Your task to perform on an android device: change the upload size in google photos Image 0: 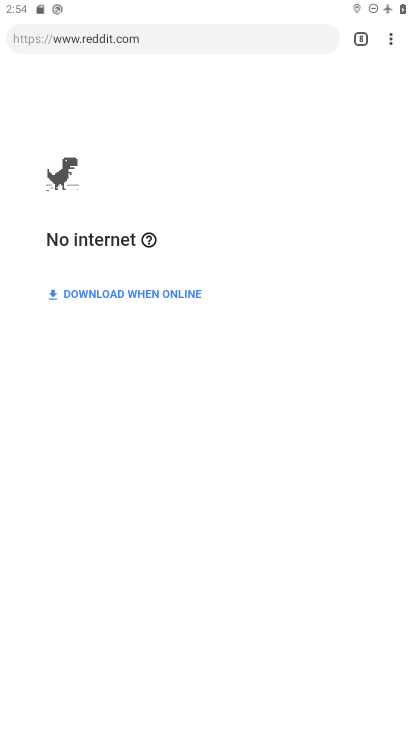
Step 0: press home button
Your task to perform on an android device: change the upload size in google photos Image 1: 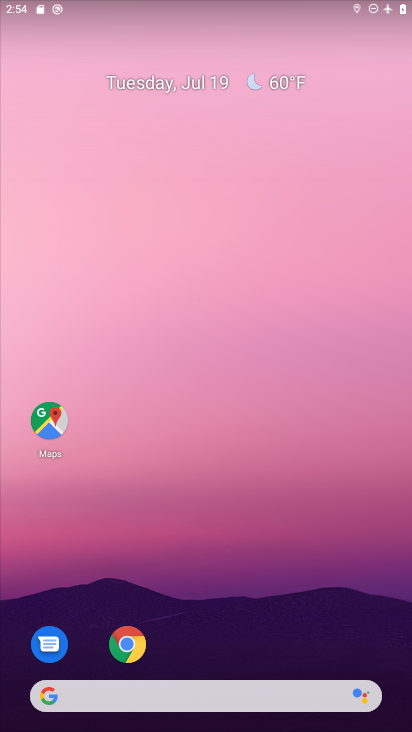
Step 1: drag from (218, 655) to (244, 12)
Your task to perform on an android device: change the upload size in google photos Image 2: 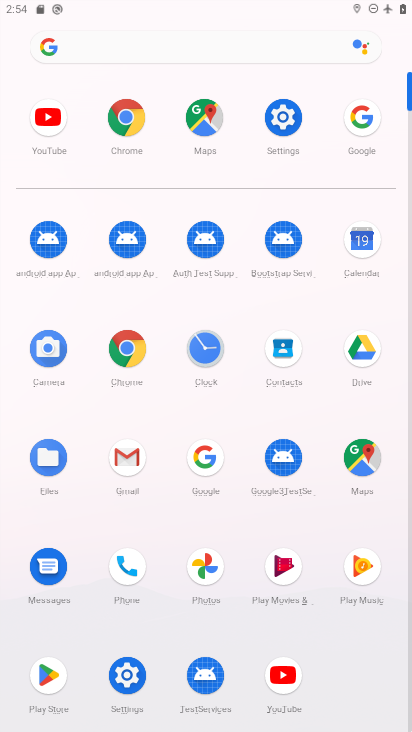
Step 2: click (201, 562)
Your task to perform on an android device: change the upload size in google photos Image 3: 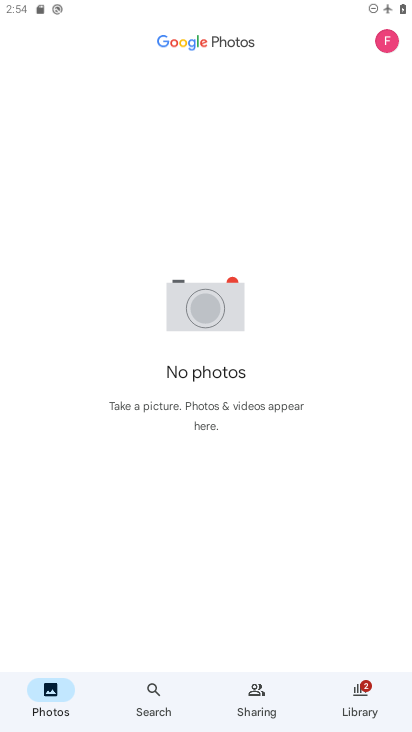
Step 3: click (385, 39)
Your task to perform on an android device: change the upload size in google photos Image 4: 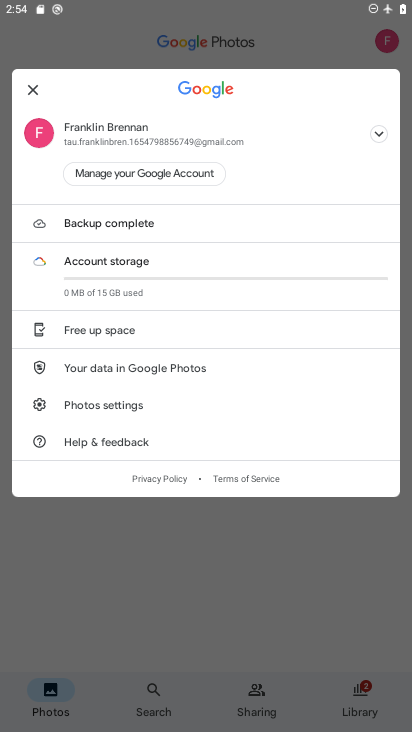
Step 4: click (100, 397)
Your task to perform on an android device: change the upload size in google photos Image 5: 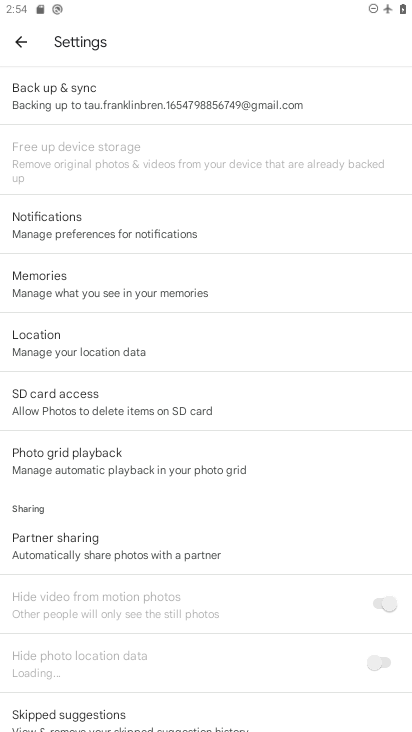
Step 5: click (110, 94)
Your task to perform on an android device: change the upload size in google photos Image 6: 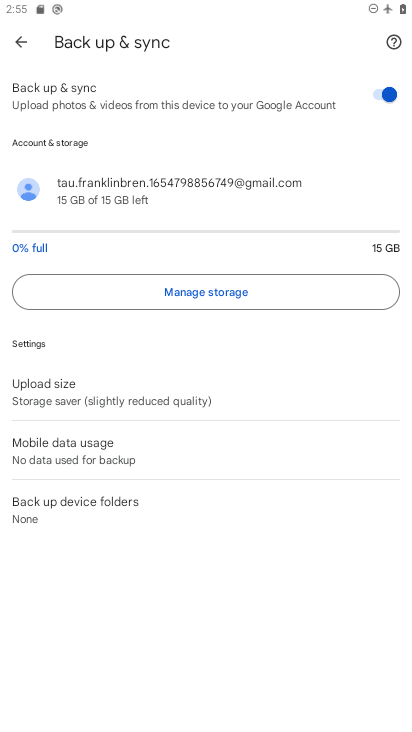
Step 6: click (106, 406)
Your task to perform on an android device: change the upload size in google photos Image 7: 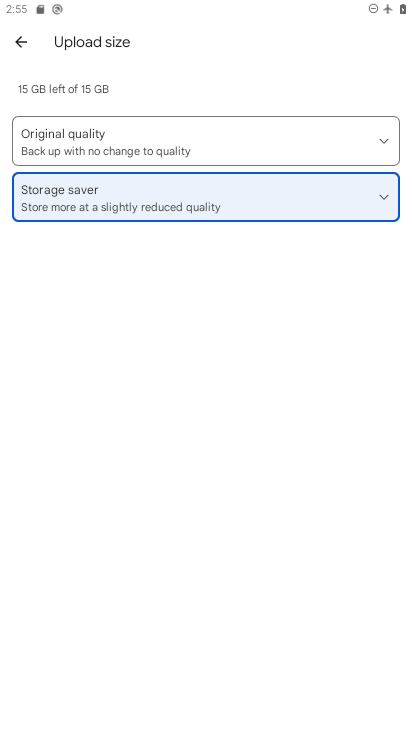
Step 7: click (80, 117)
Your task to perform on an android device: change the upload size in google photos Image 8: 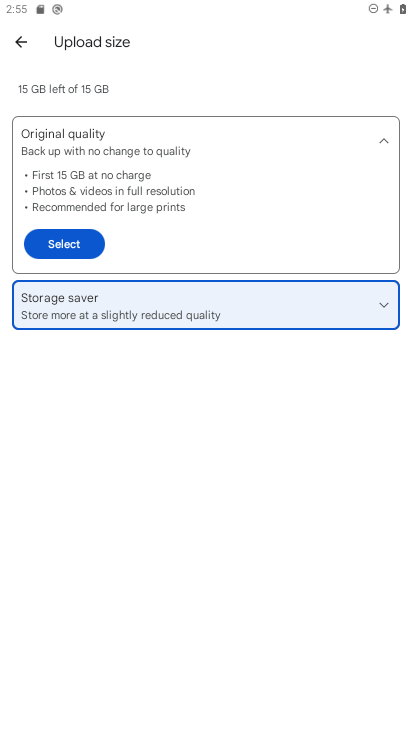
Step 8: click (65, 243)
Your task to perform on an android device: change the upload size in google photos Image 9: 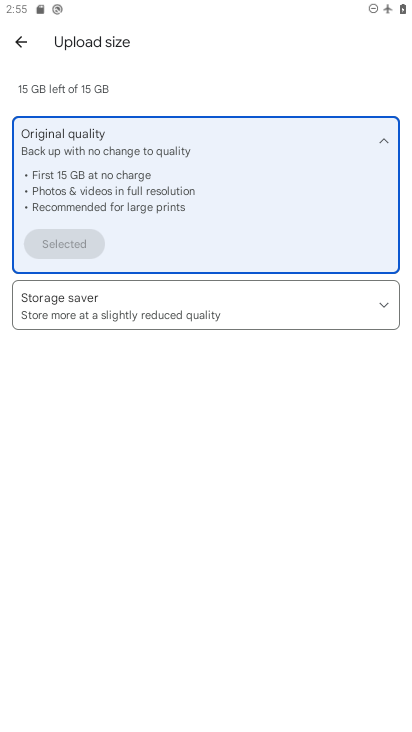
Step 9: task complete